Your task to perform on an android device: What is the news today? Image 0: 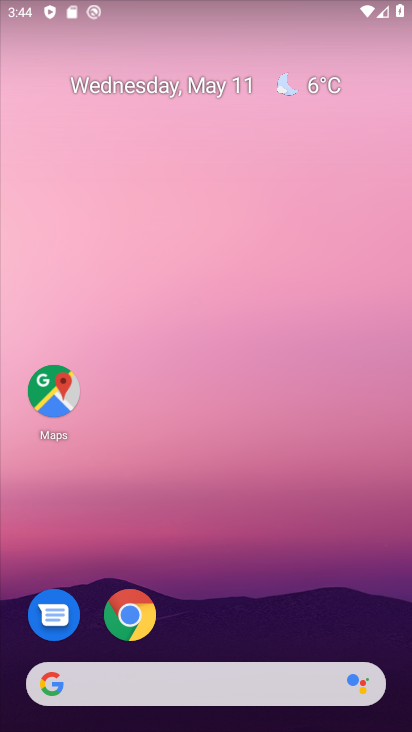
Step 0: drag from (19, 267) to (312, 274)
Your task to perform on an android device: What is the news today? Image 1: 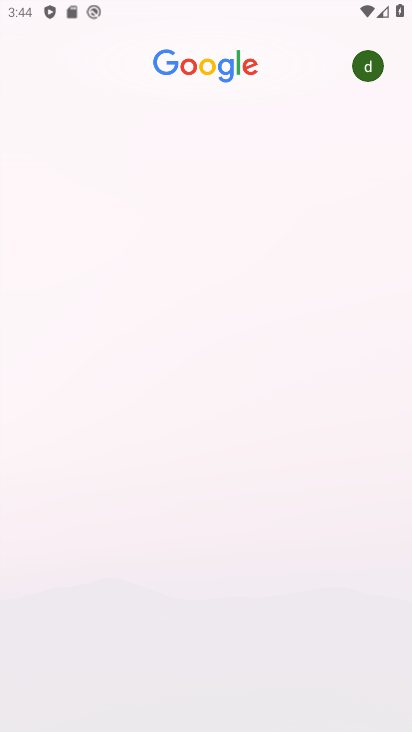
Step 1: task complete